Your task to perform on an android device: Show me productivity apps on the Play Store Image 0: 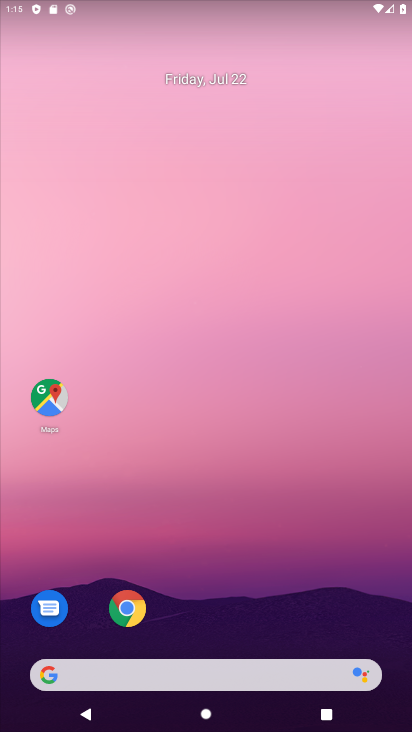
Step 0: drag from (392, 700) to (315, 178)
Your task to perform on an android device: Show me productivity apps on the Play Store Image 1: 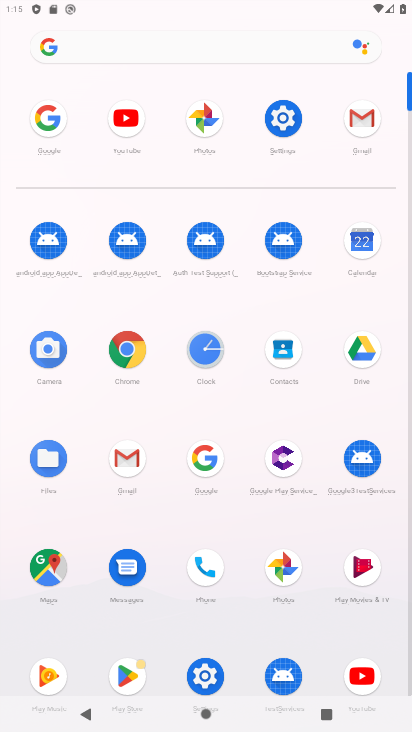
Step 1: click (125, 667)
Your task to perform on an android device: Show me productivity apps on the Play Store Image 2: 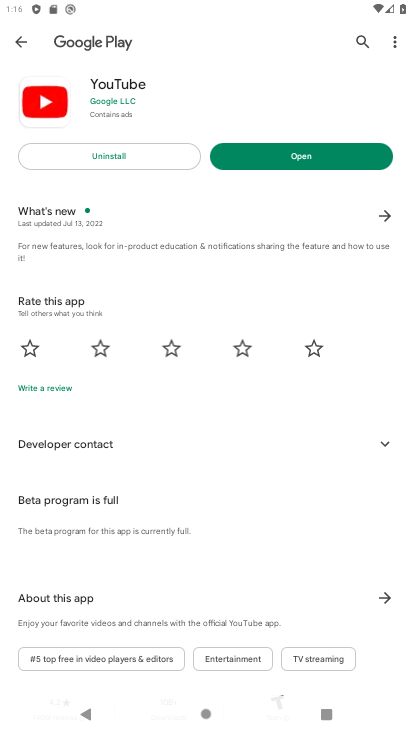
Step 2: click (23, 41)
Your task to perform on an android device: Show me productivity apps on the Play Store Image 3: 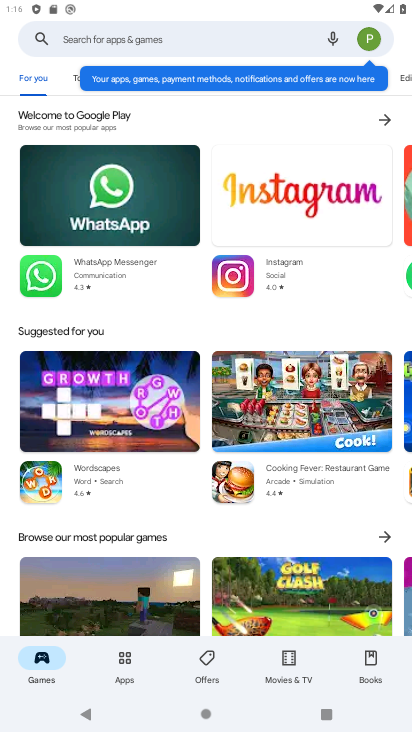
Step 3: click (160, 40)
Your task to perform on an android device: Show me productivity apps on the Play Store Image 4: 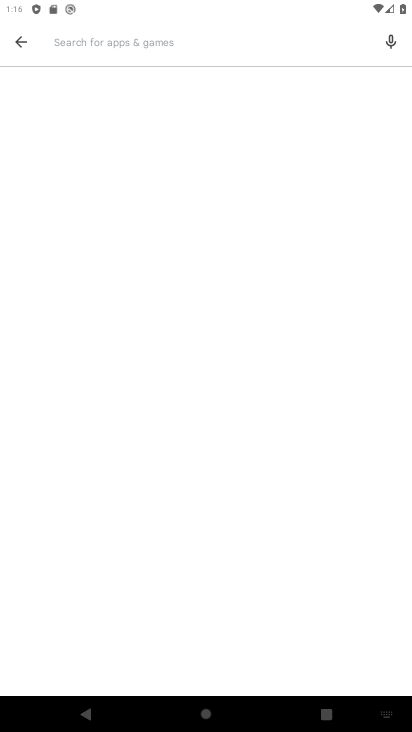
Step 4: type "productivity apps on the Play Store"
Your task to perform on an android device: Show me productivity apps on the Play Store Image 5: 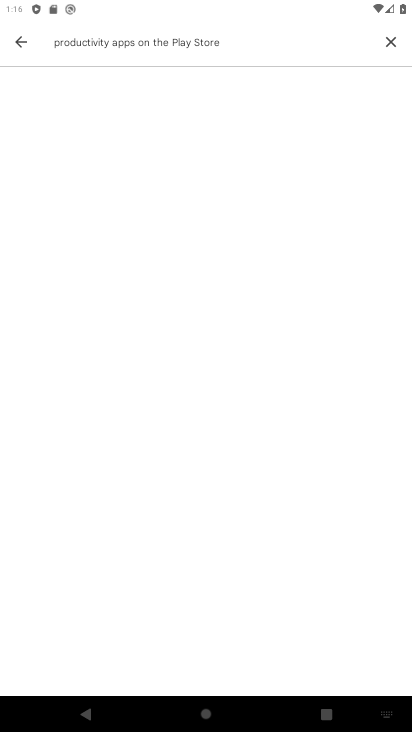
Step 5: task complete